Your task to perform on an android device: Do I have any events this weekend? Image 0: 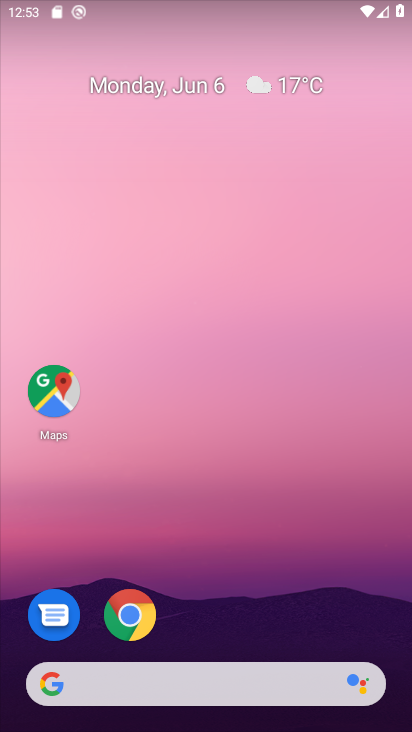
Step 0: drag from (329, 658) to (309, 5)
Your task to perform on an android device: Do I have any events this weekend? Image 1: 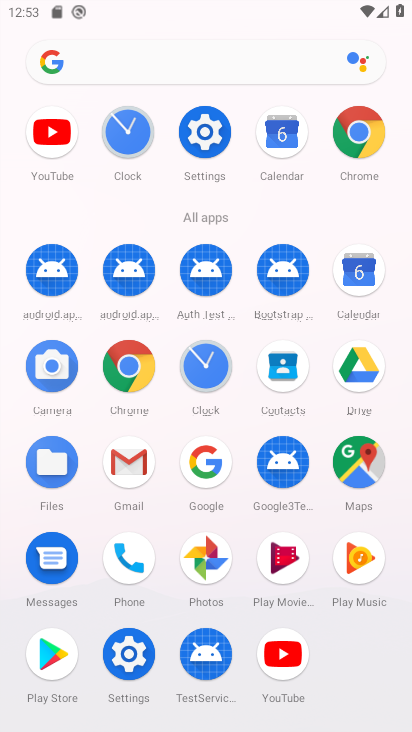
Step 1: click (356, 265)
Your task to perform on an android device: Do I have any events this weekend? Image 2: 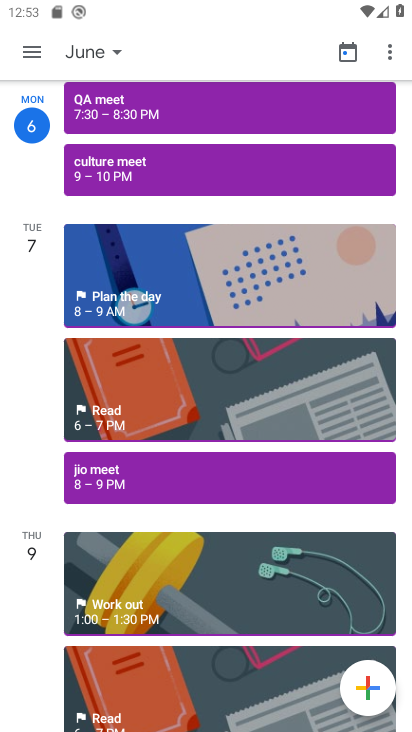
Step 2: click (99, 59)
Your task to perform on an android device: Do I have any events this weekend? Image 3: 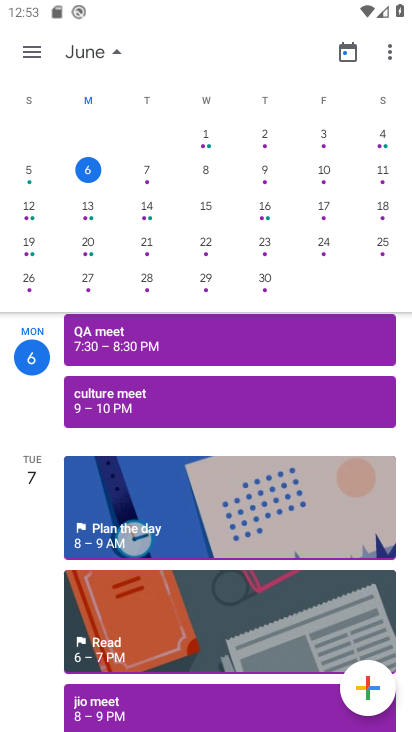
Step 3: click (389, 169)
Your task to perform on an android device: Do I have any events this weekend? Image 4: 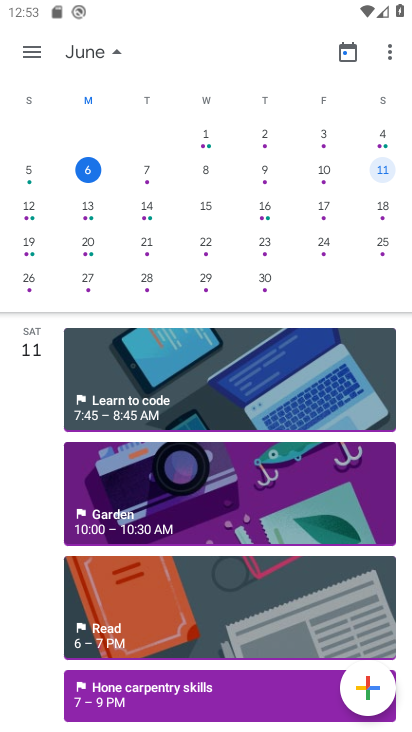
Step 4: task complete